Your task to perform on an android device: Go to Yahoo.com Image 0: 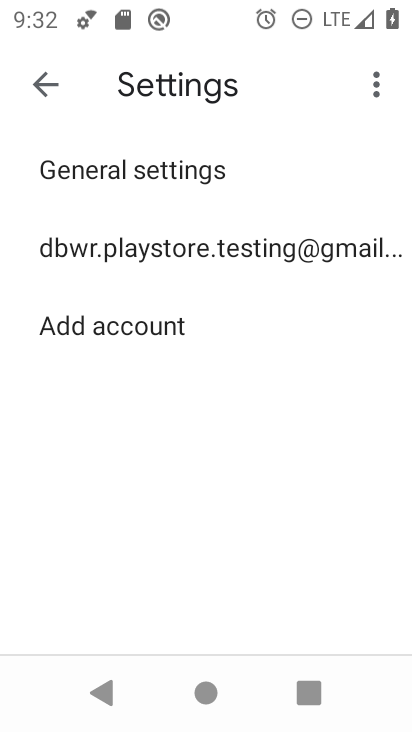
Step 0: press home button
Your task to perform on an android device: Go to Yahoo.com Image 1: 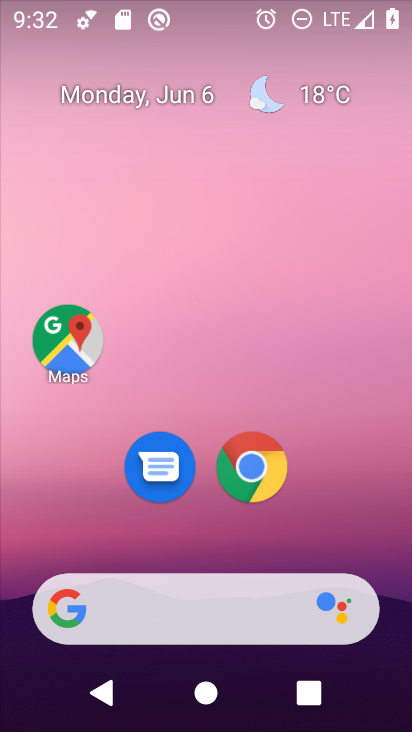
Step 1: drag from (358, 526) to (377, 153)
Your task to perform on an android device: Go to Yahoo.com Image 2: 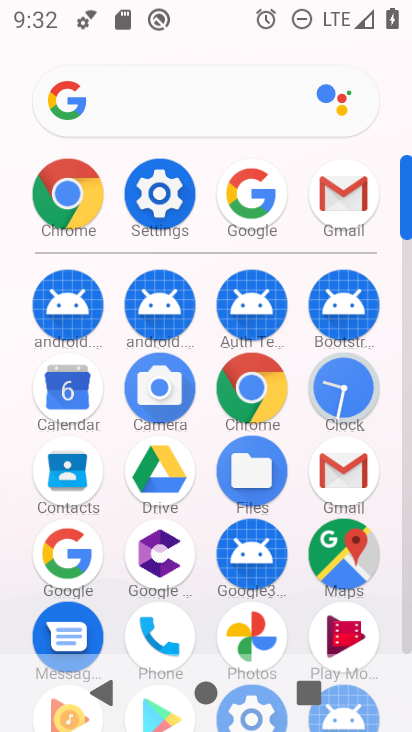
Step 2: click (261, 392)
Your task to perform on an android device: Go to Yahoo.com Image 3: 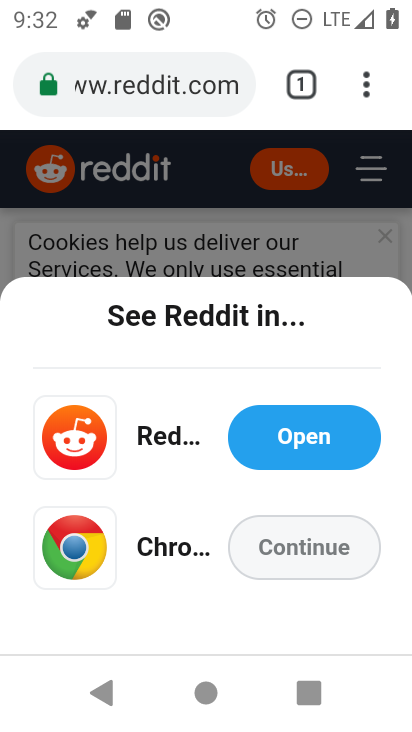
Step 3: click (197, 67)
Your task to perform on an android device: Go to Yahoo.com Image 4: 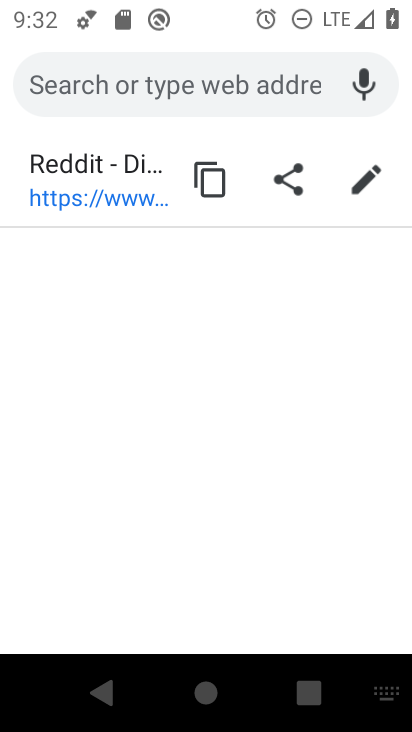
Step 4: type "yahoo.com"
Your task to perform on an android device: Go to Yahoo.com Image 5: 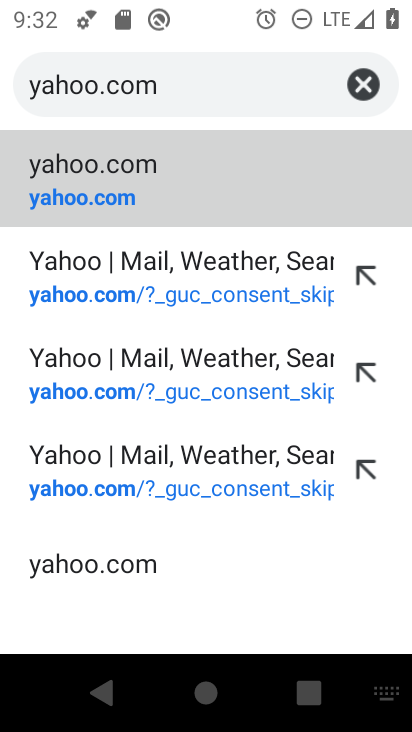
Step 5: click (113, 167)
Your task to perform on an android device: Go to Yahoo.com Image 6: 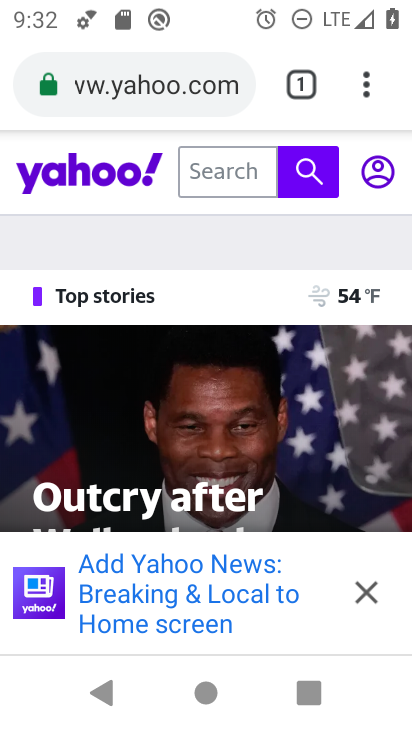
Step 6: task complete